Your task to perform on an android device: What is the recent news? Image 0: 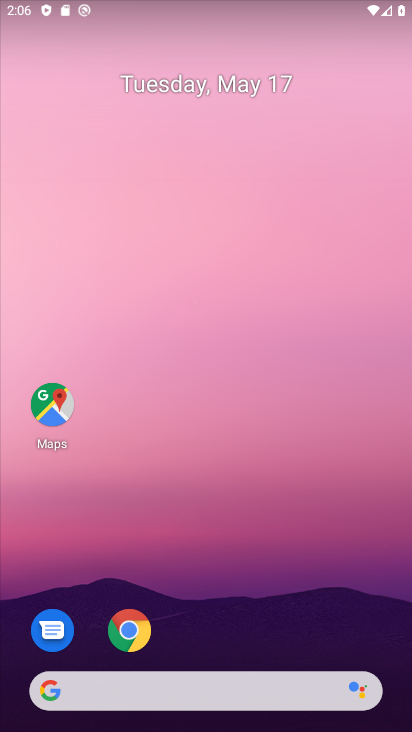
Step 0: drag from (287, 412) to (352, 66)
Your task to perform on an android device: What is the recent news? Image 1: 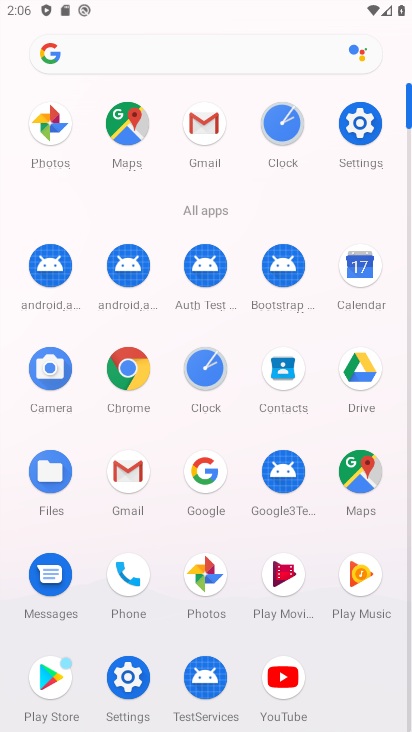
Step 1: click (217, 498)
Your task to perform on an android device: What is the recent news? Image 2: 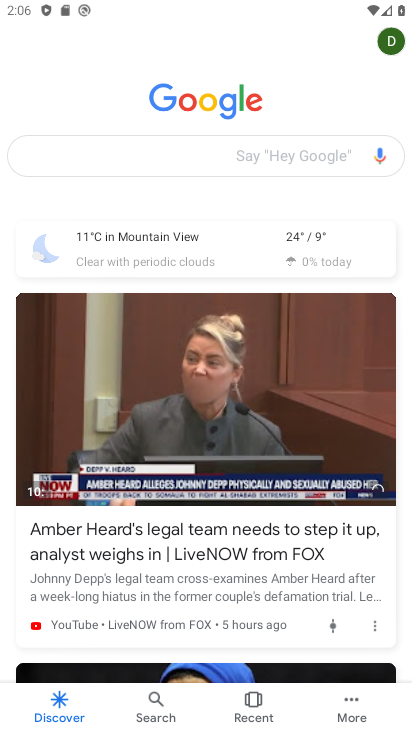
Step 2: click (259, 155)
Your task to perform on an android device: What is the recent news? Image 3: 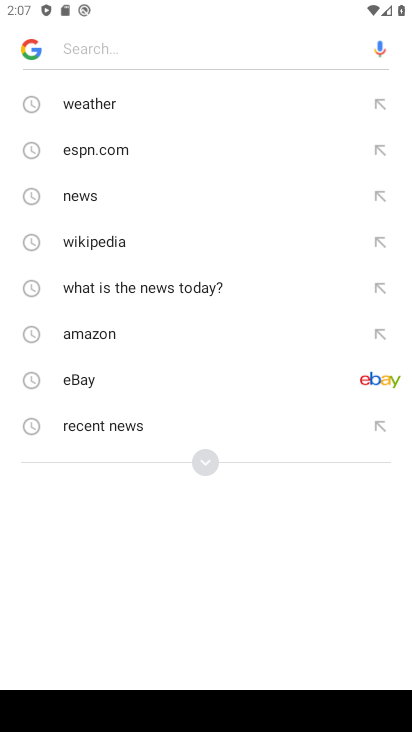
Step 3: type "resent news"
Your task to perform on an android device: What is the recent news? Image 4: 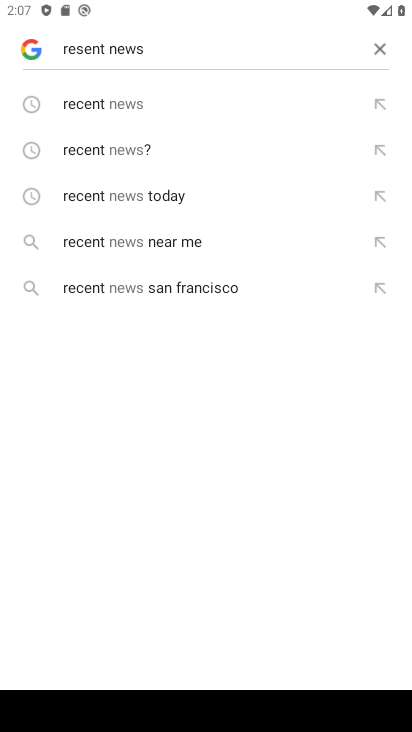
Step 4: click (77, 108)
Your task to perform on an android device: What is the recent news? Image 5: 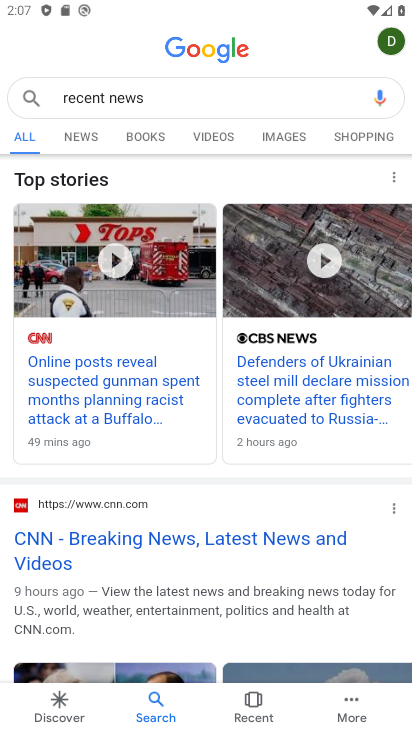
Step 5: task complete